Your task to perform on an android device: turn on location history Image 0: 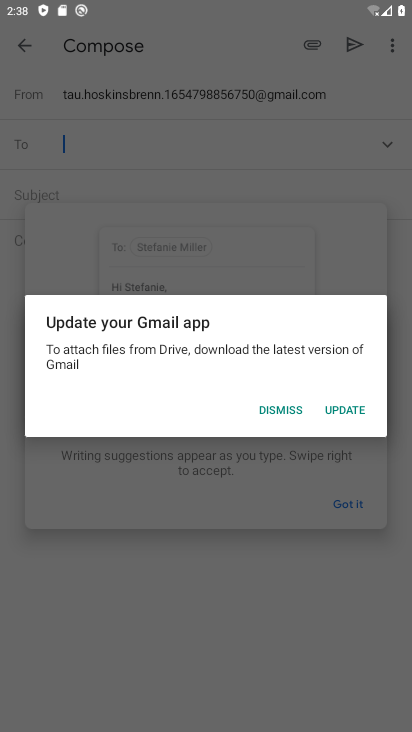
Step 0: press home button
Your task to perform on an android device: turn on location history Image 1: 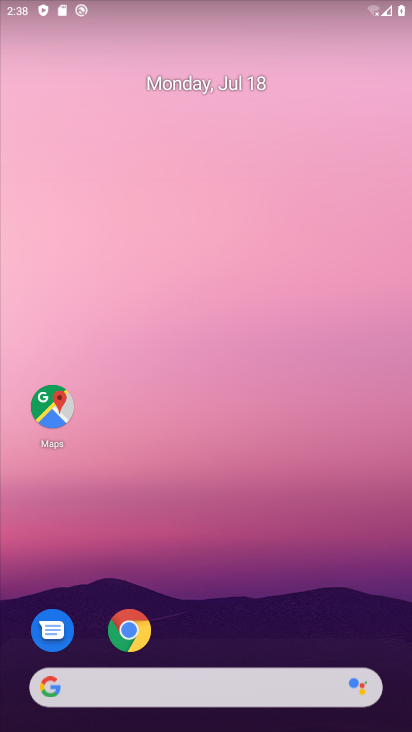
Step 1: drag from (284, 594) to (263, 14)
Your task to perform on an android device: turn on location history Image 2: 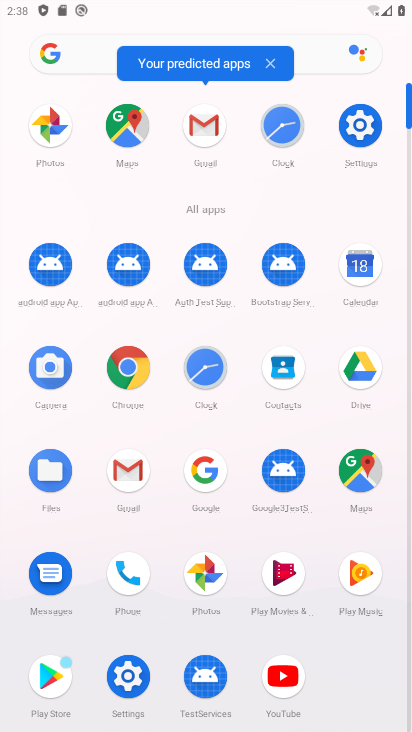
Step 2: click (360, 138)
Your task to perform on an android device: turn on location history Image 3: 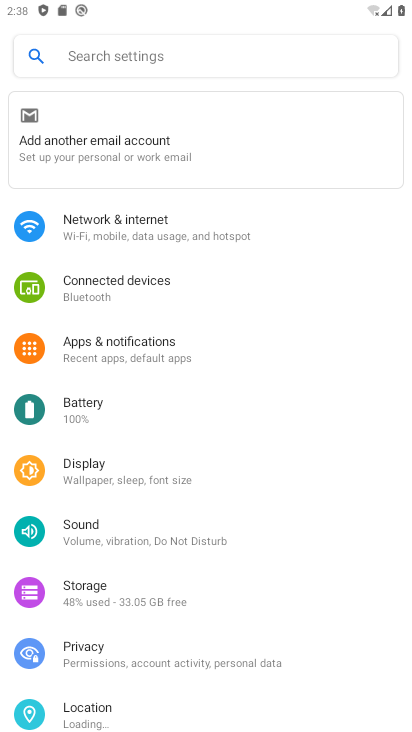
Step 3: click (72, 700)
Your task to perform on an android device: turn on location history Image 4: 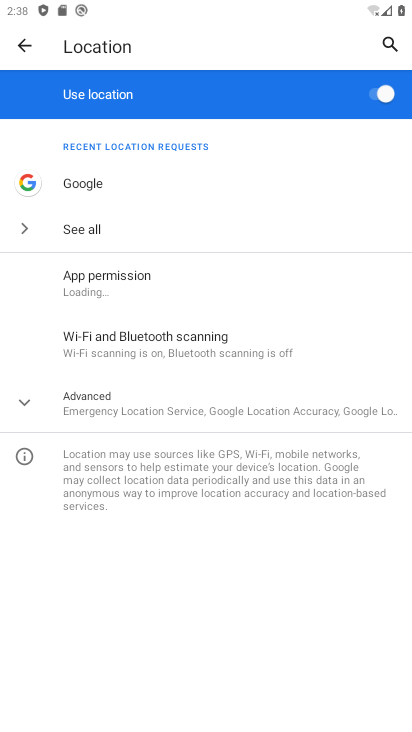
Step 4: click (288, 419)
Your task to perform on an android device: turn on location history Image 5: 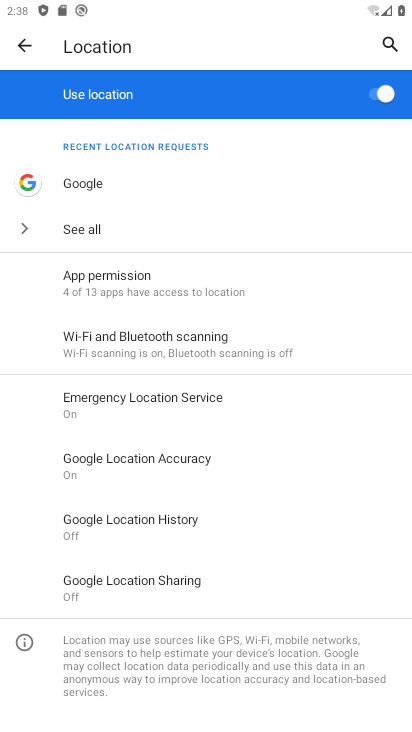
Step 5: click (153, 511)
Your task to perform on an android device: turn on location history Image 6: 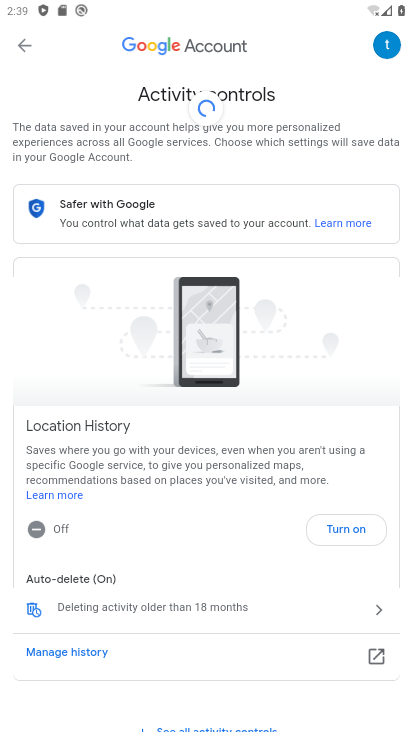
Step 6: click (358, 533)
Your task to perform on an android device: turn on location history Image 7: 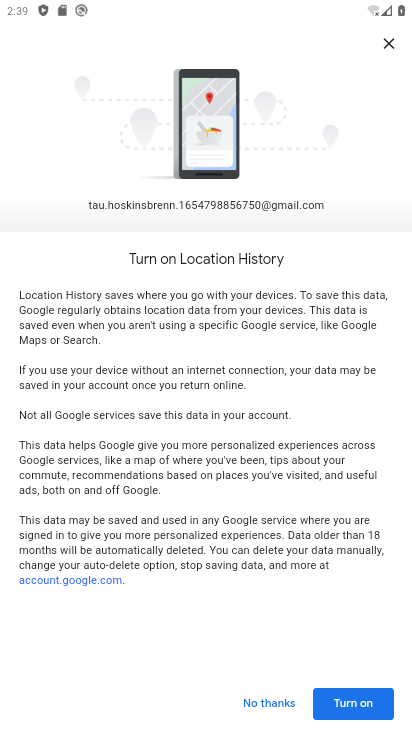
Step 7: click (359, 710)
Your task to perform on an android device: turn on location history Image 8: 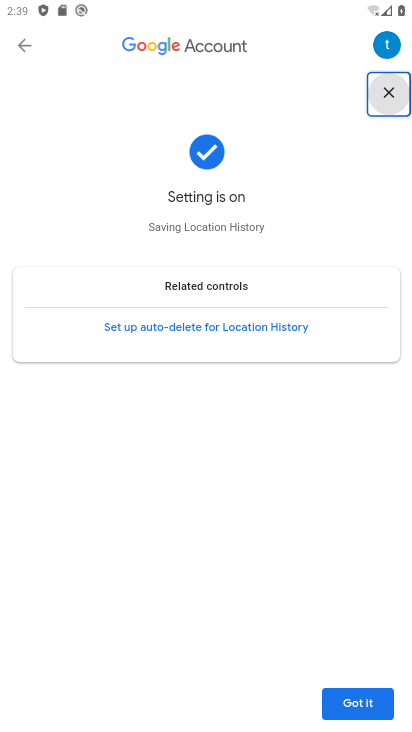
Step 8: task complete